Your task to perform on an android device: open wifi settings Image 0: 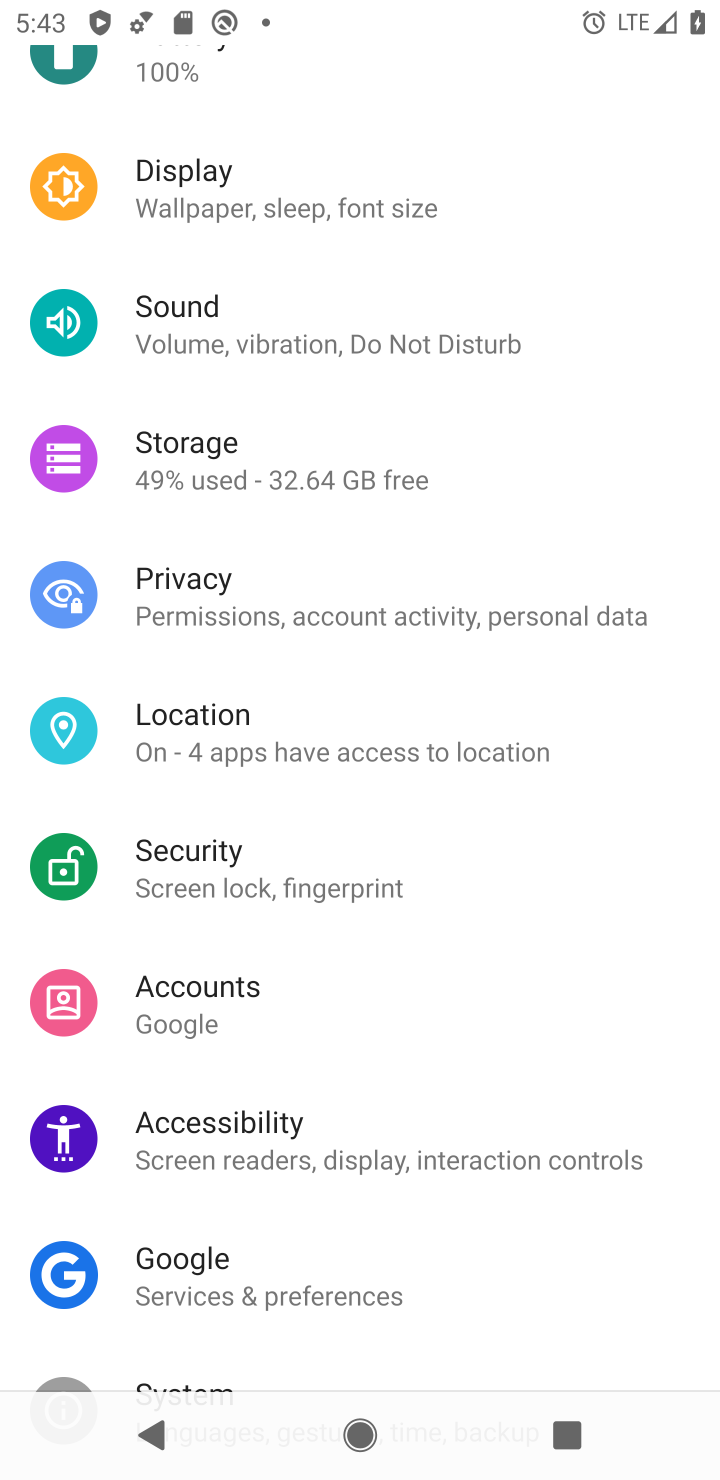
Step 0: press home button
Your task to perform on an android device: open wifi settings Image 1: 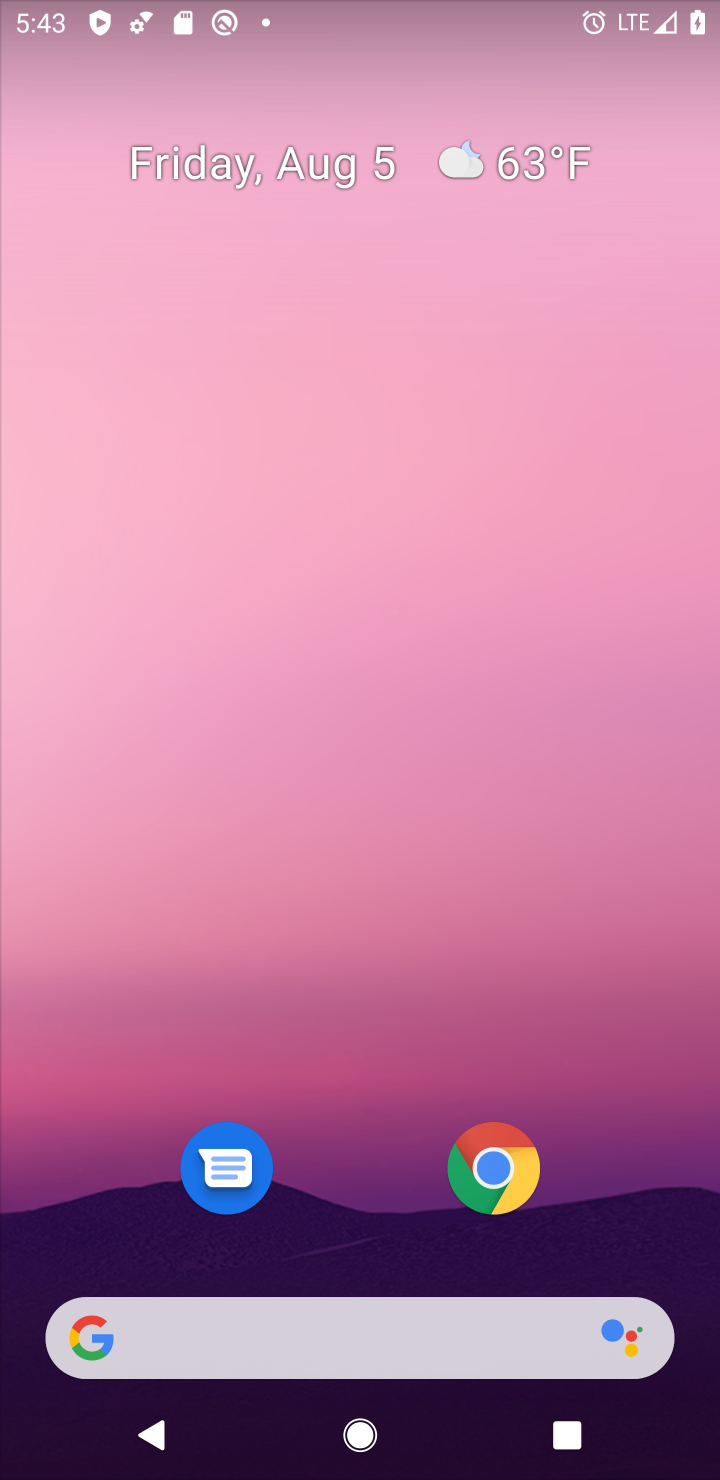
Step 1: drag from (380, 1169) to (452, 175)
Your task to perform on an android device: open wifi settings Image 2: 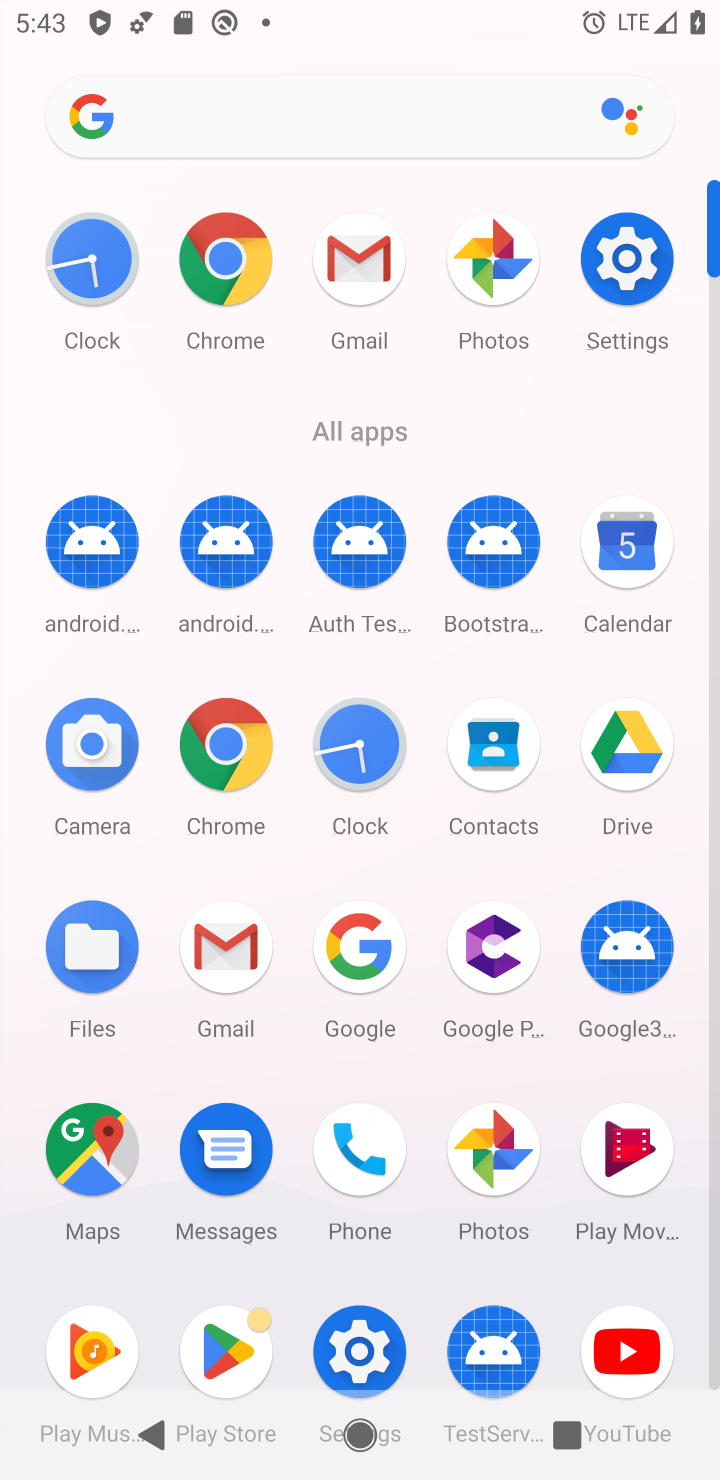
Step 2: click (607, 260)
Your task to perform on an android device: open wifi settings Image 3: 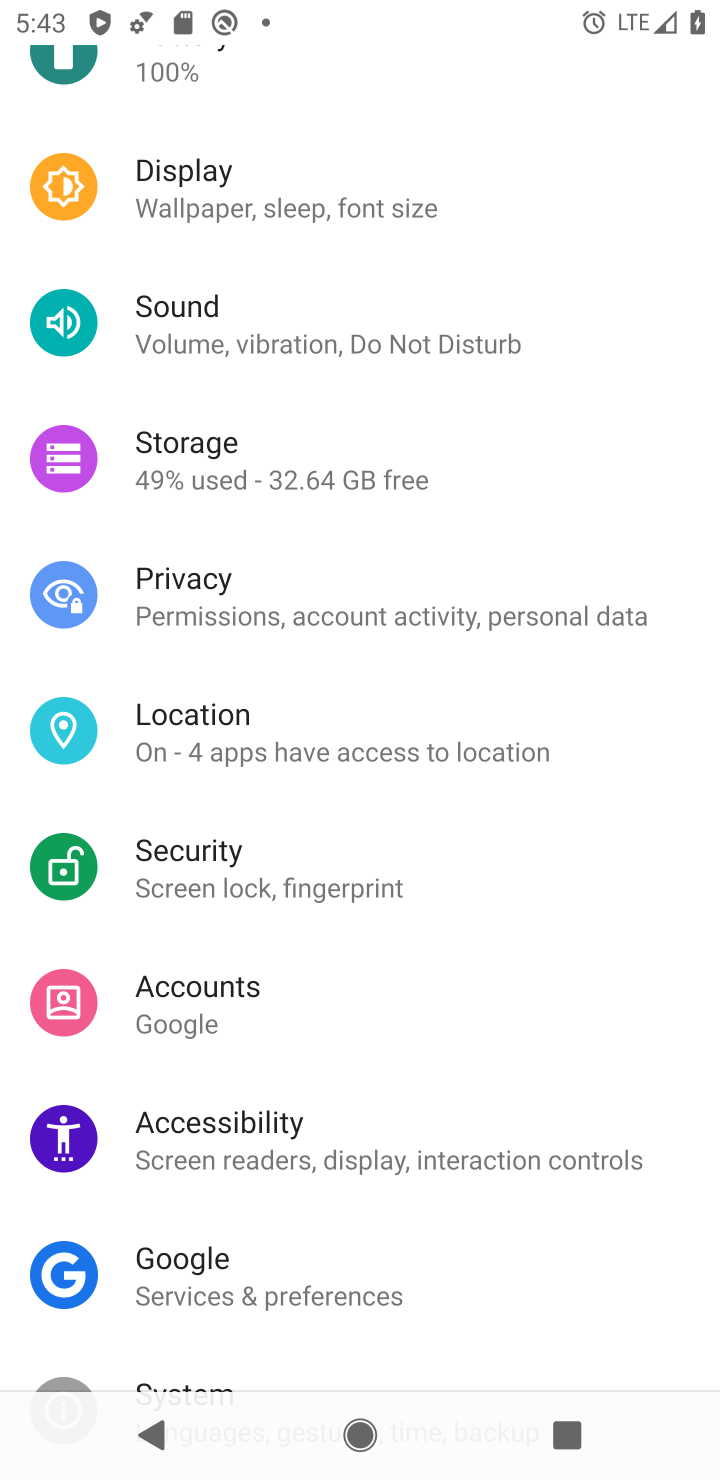
Step 3: drag from (387, 292) to (232, 1374)
Your task to perform on an android device: open wifi settings Image 4: 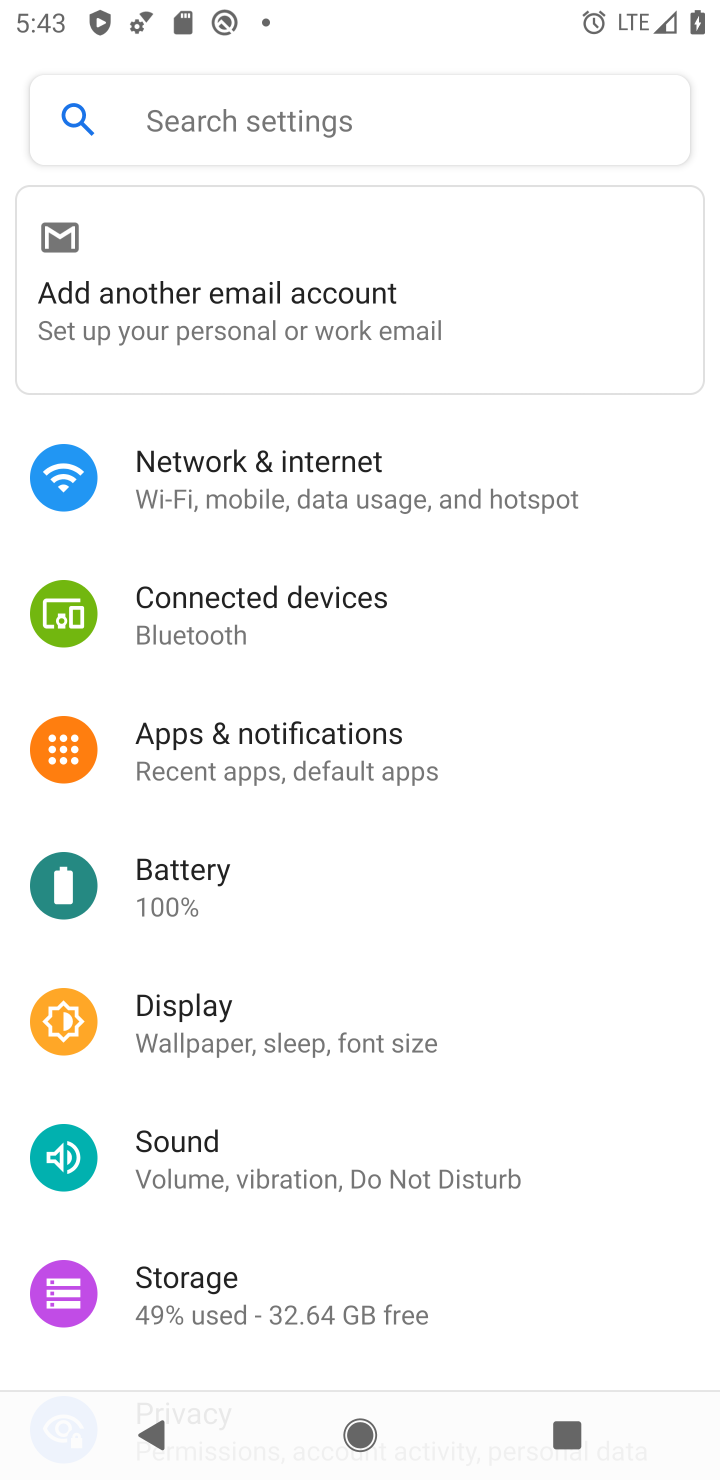
Step 4: click (300, 494)
Your task to perform on an android device: open wifi settings Image 5: 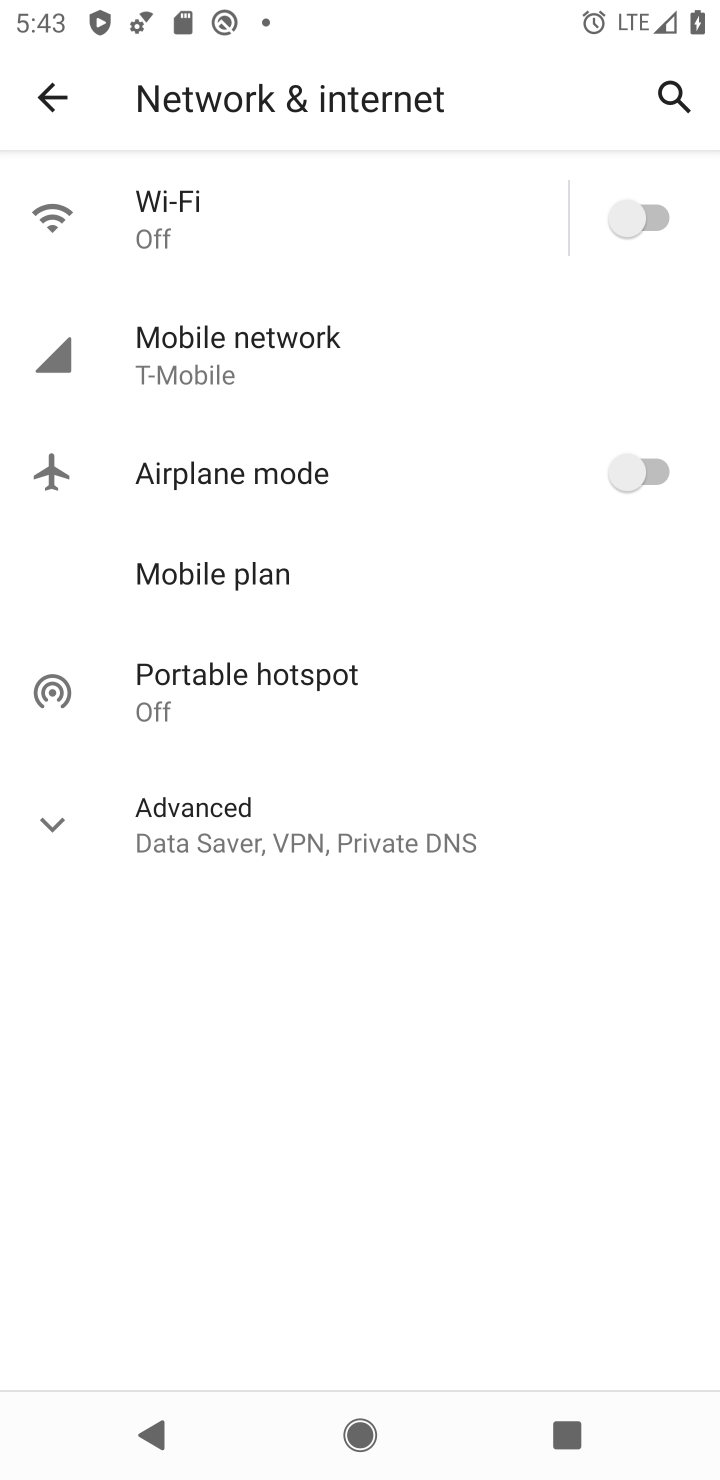
Step 5: click (635, 216)
Your task to perform on an android device: open wifi settings Image 6: 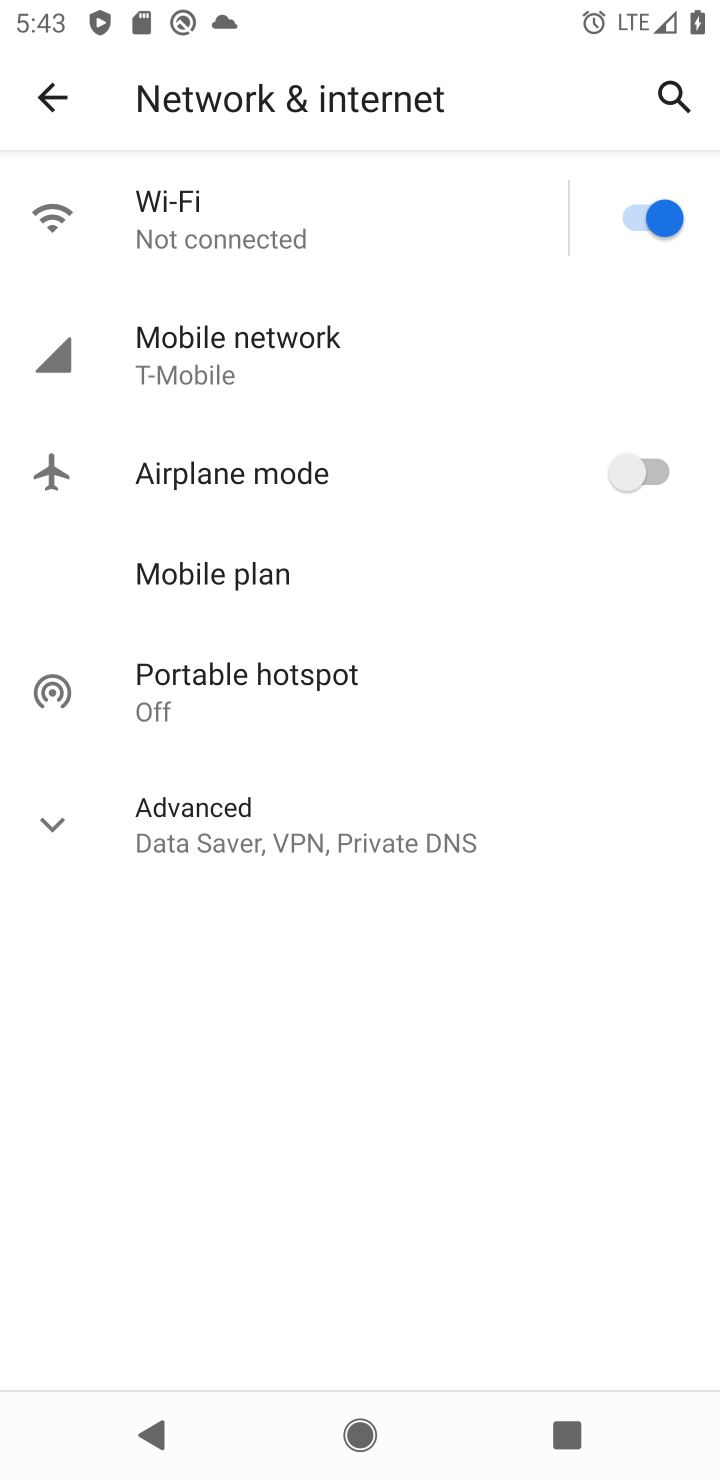
Step 6: click (218, 223)
Your task to perform on an android device: open wifi settings Image 7: 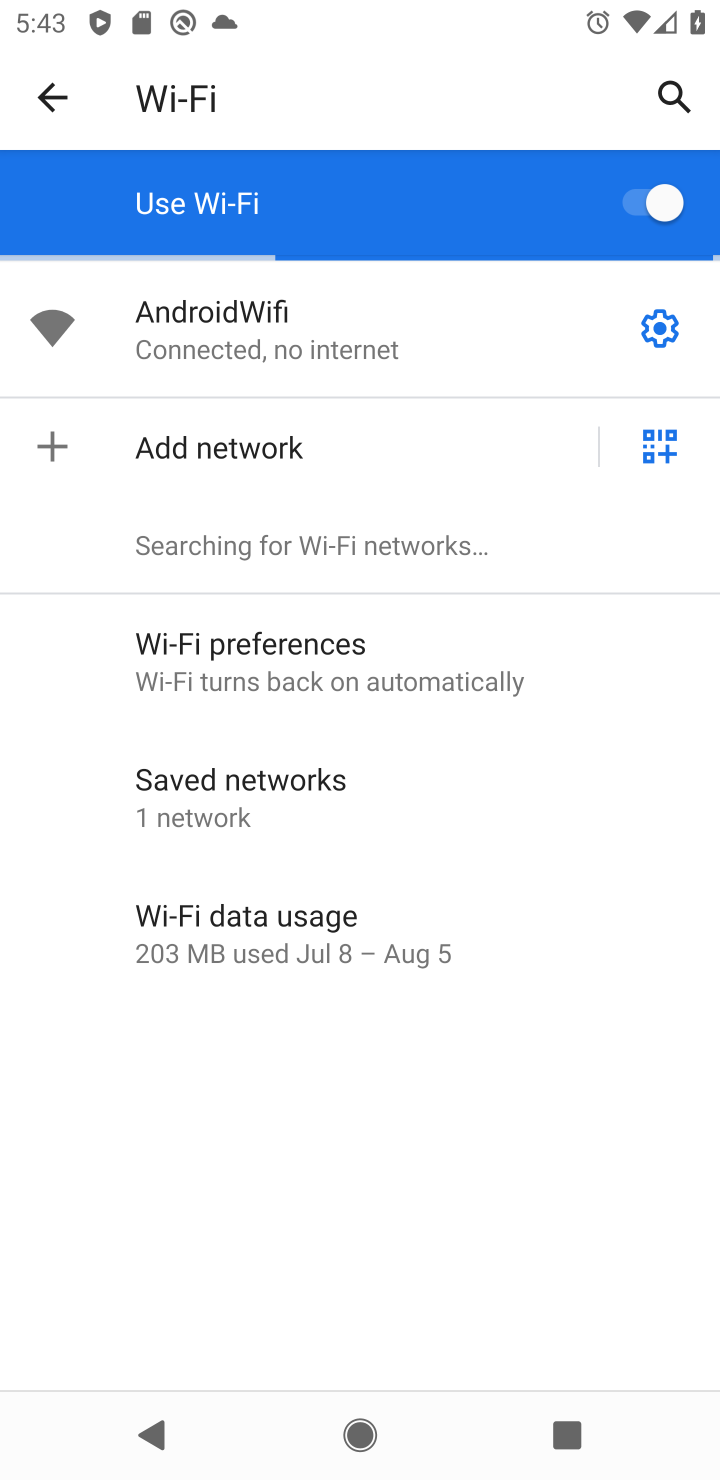
Step 7: click (246, 338)
Your task to perform on an android device: open wifi settings Image 8: 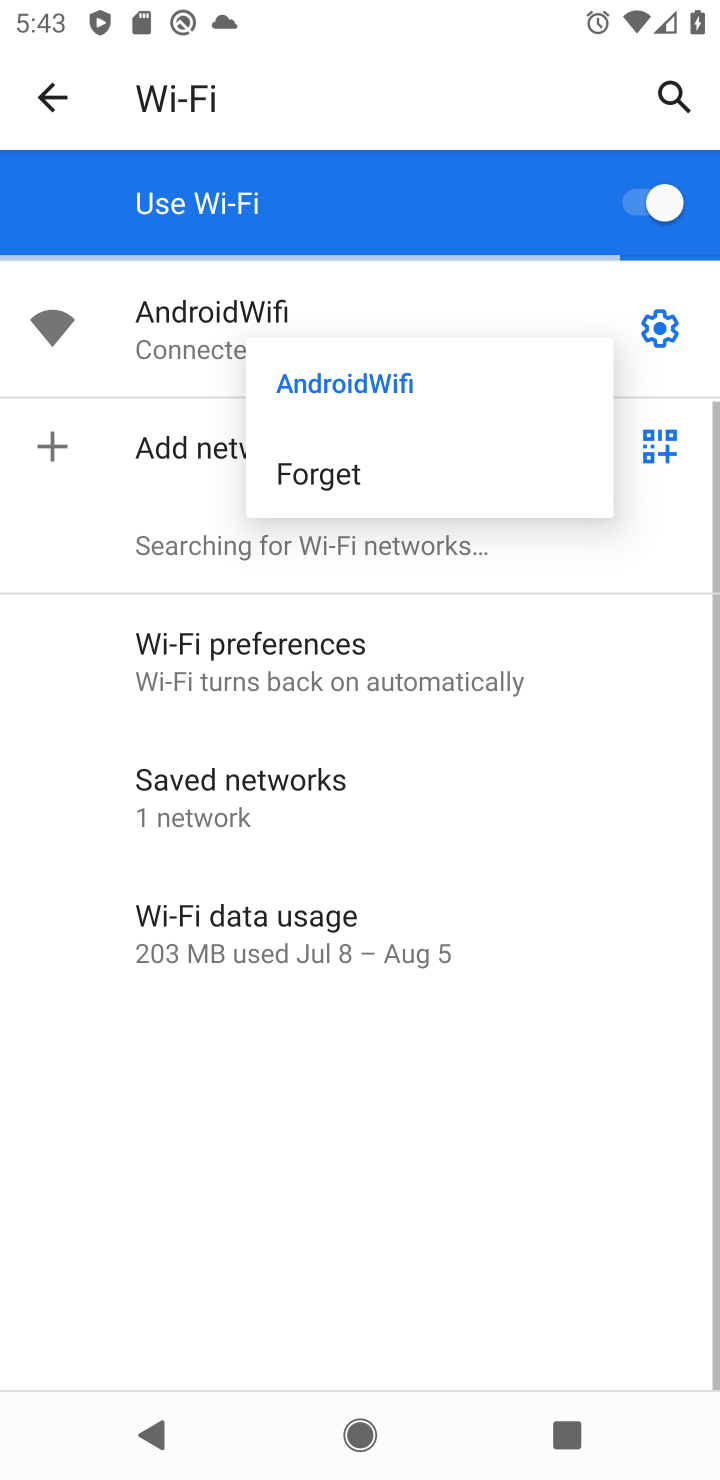
Step 8: click (234, 329)
Your task to perform on an android device: open wifi settings Image 9: 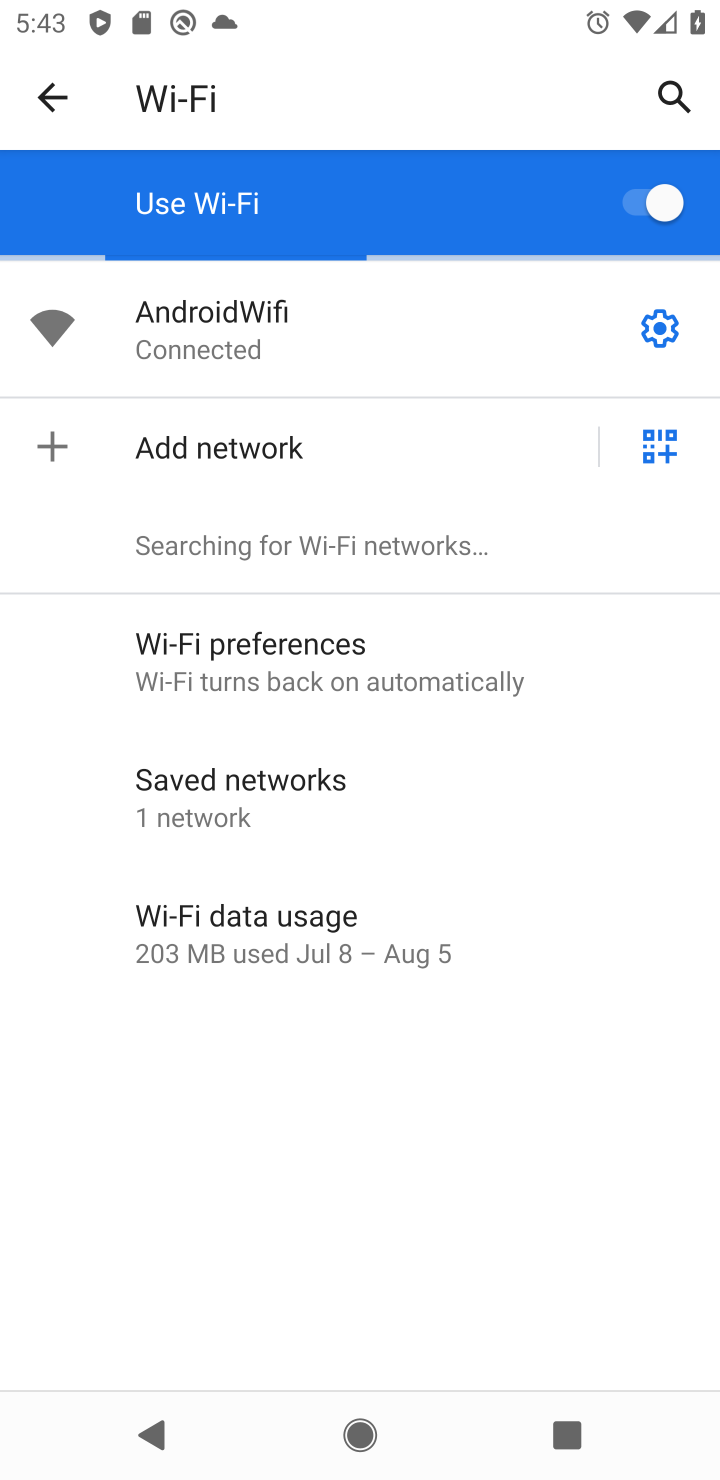
Step 9: click (175, 313)
Your task to perform on an android device: open wifi settings Image 10: 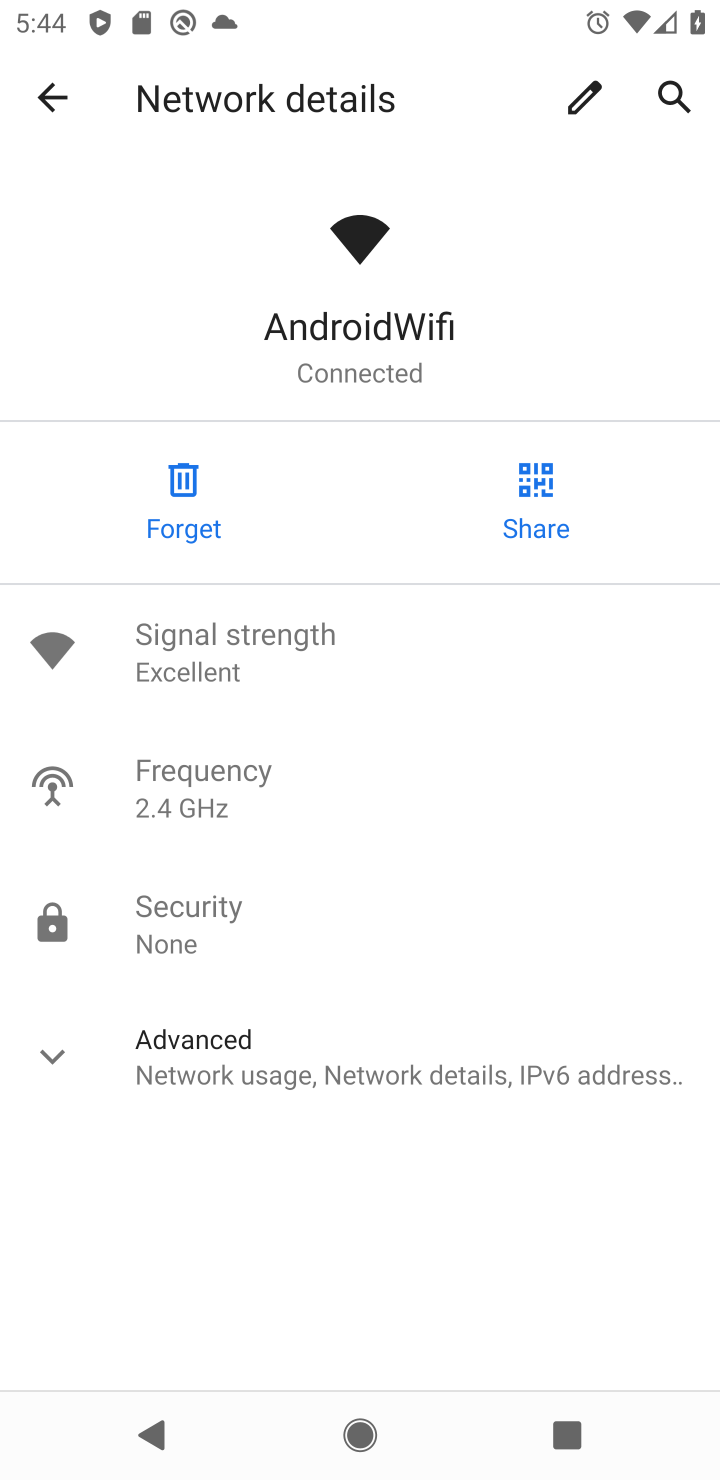
Step 10: task complete